Your task to perform on an android device: Set the phone to "Do not disturb". Image 0: 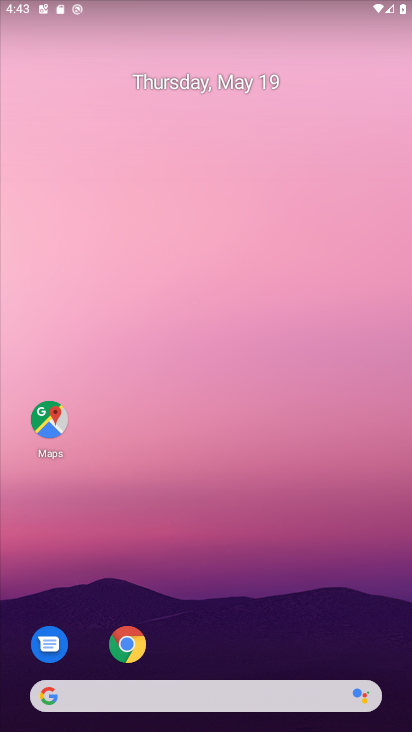
Step 0: drag from (292, 628) to (369, 90)
Your task to perform on an android device: Set the phone to "Do not disturb". Image 1: 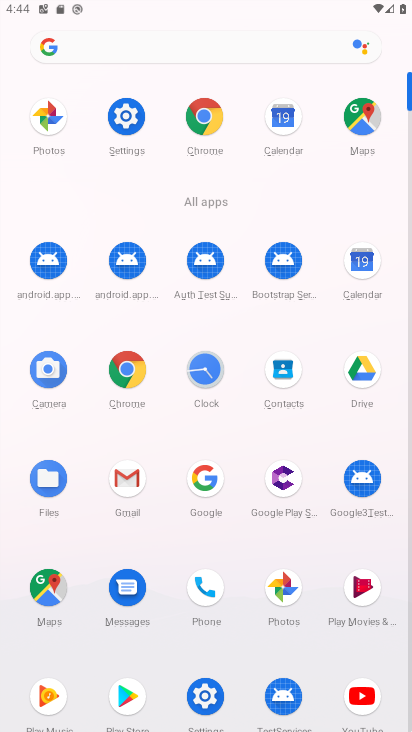
Step 1: drag from (384, 15) to (335, 646)
Your task to perform on an android device: Set the phone to "Do not disturb". Image 2: 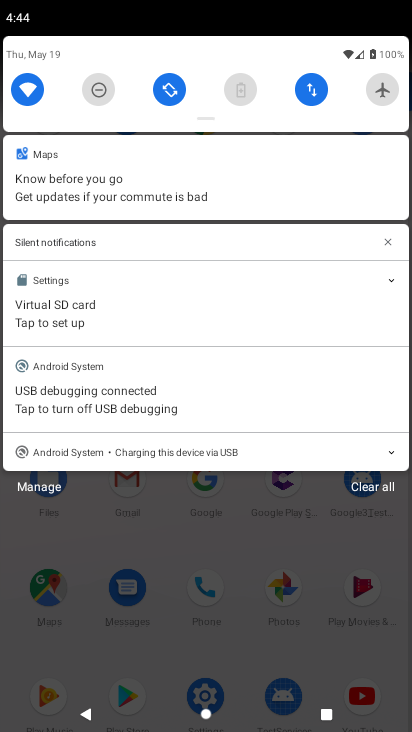
Step 2: click (89, 100)
Your task to perform on an android device: Set the phone to "Do not disturb". Image 3: 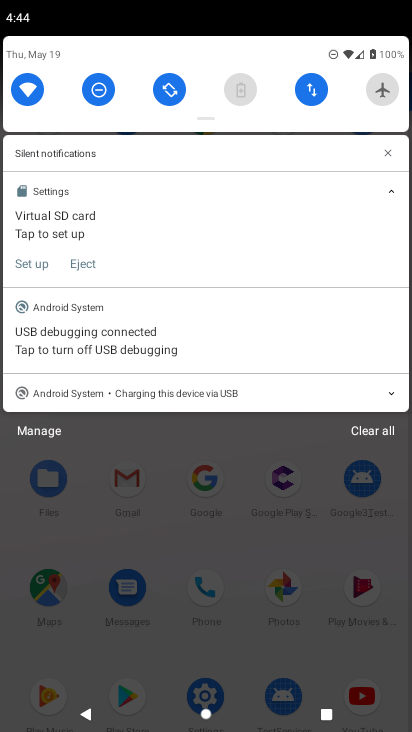
Step 3: task complete